Your task to perform on an android device: delete location history Image 0: 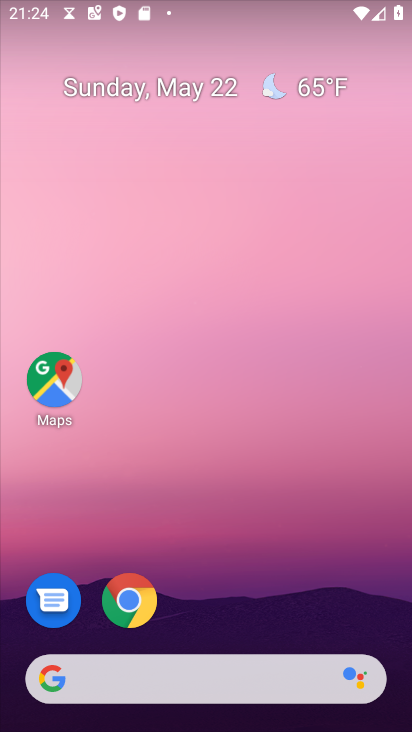
Step 0: drag from (278, 608) to (279, 260)
Your task to perform on an android device: delete location history Image 1: 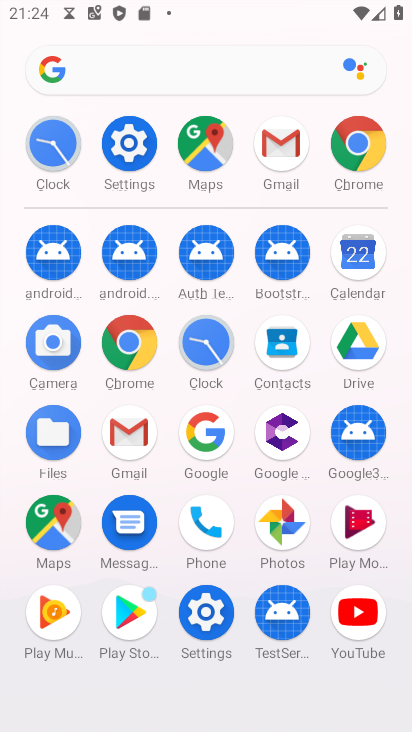
Step 1: click (210, 613)
Your task to perform on an android device: delete location history Image 2: 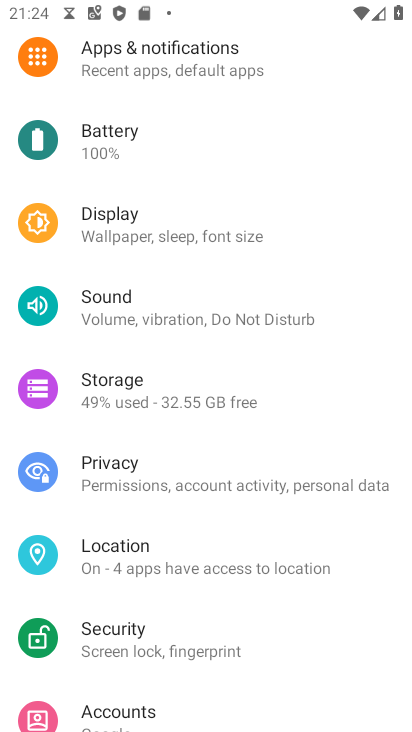
Step 2: click (145, 582)
Your task to perform on an android device: delete location history Image 3: 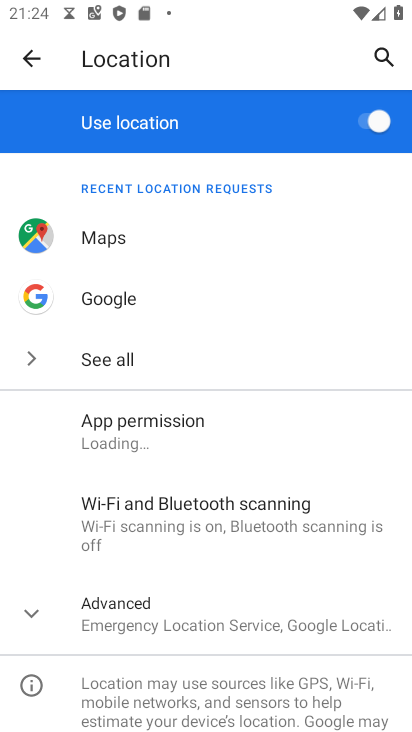
Step 3: drag from (177, 651) to (181, 416)
Your task to perform on an android device: delete location history Image 4: 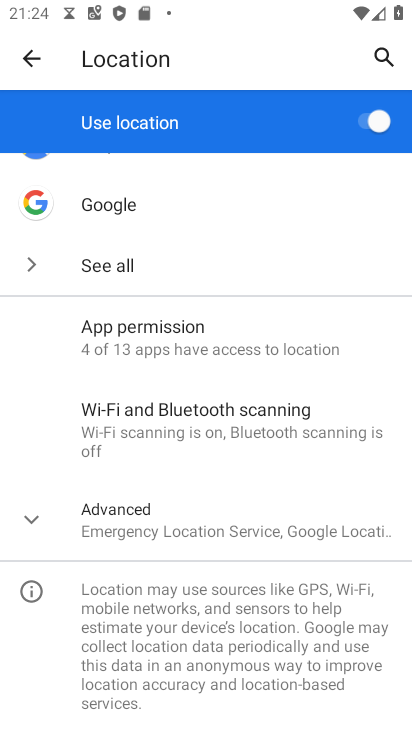
Step 4: click (135, 523)
Your task to perform on an android device: delete location history Image 5: 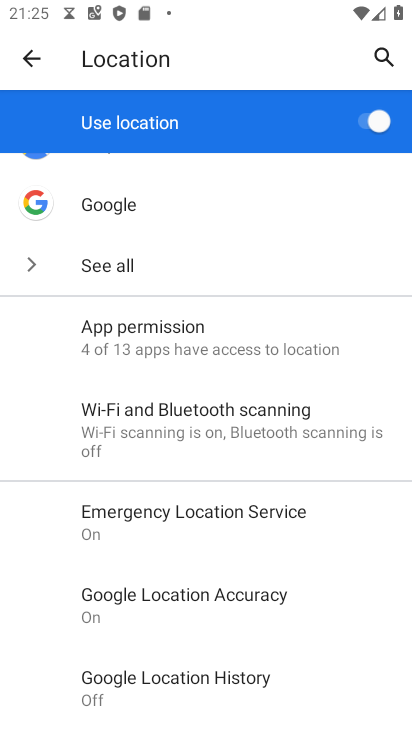
Step 5: drag from (146, 666) to (160, 407)
Your task to perform on an android device: delete location history Image 6: 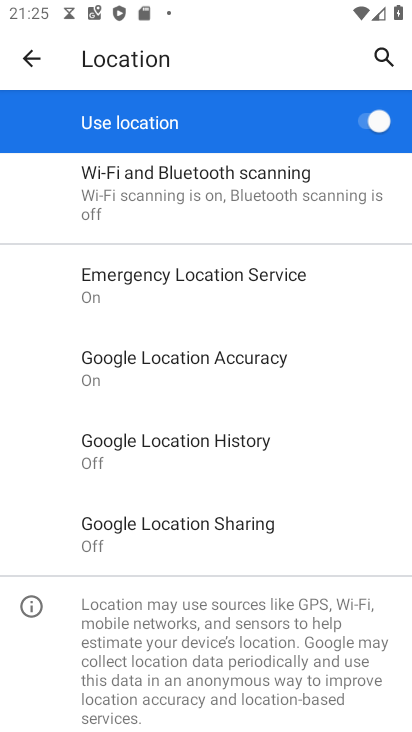
Step 6: click (168, 461)
Your task to perform on an android device: delete location history Image 7: 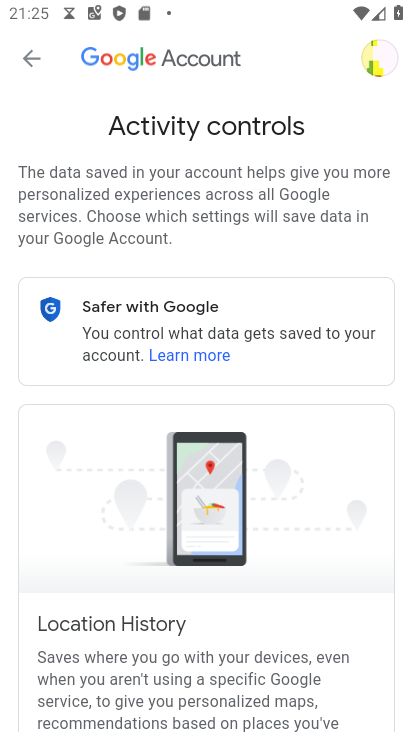
Step 7: drag from (256, 611) to (291, 292)
Your task to perform on an android device: delete location history Image 8: 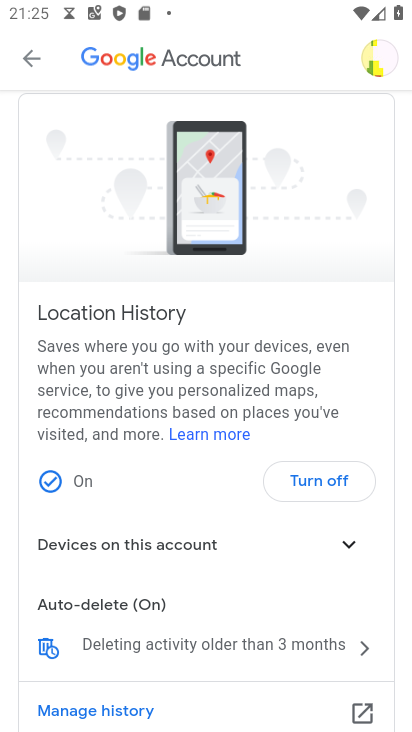
Step 8: drag from (137, 660) to (131, 530)
Your task to perform on an android device: delete location history Image 9: 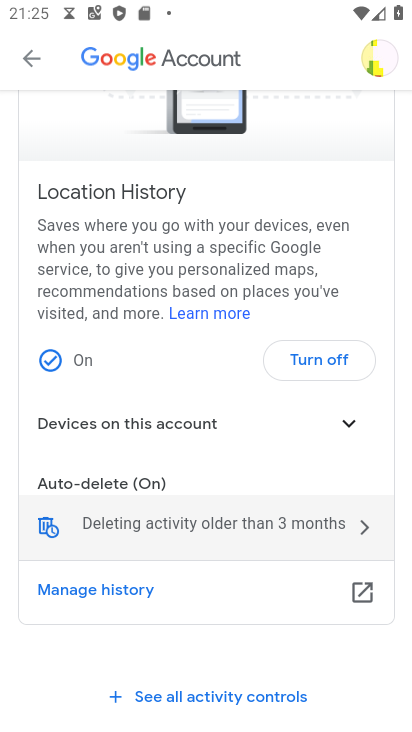
Step 9: click (110, 597)
Your task to perform on an android device: delete location history Image 10: 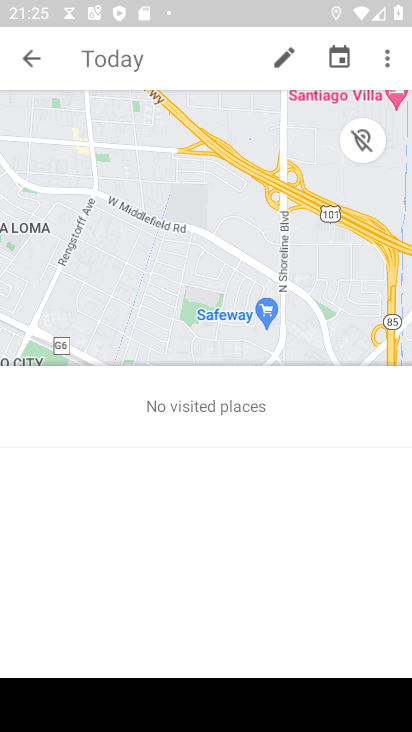
Step 10: click (376, 62)
Your task to perform on an android device: delete location history Image 11: 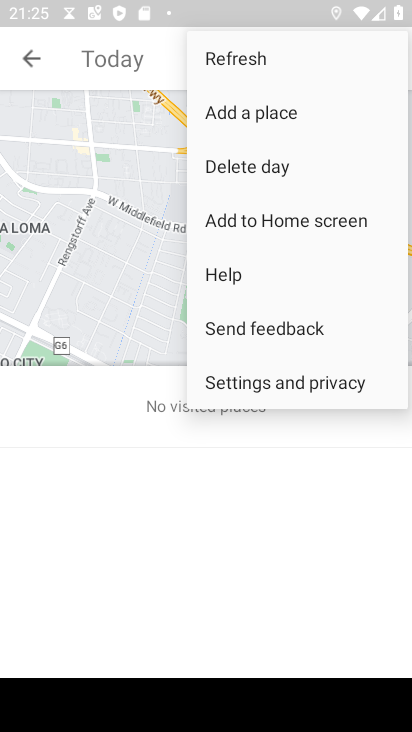
Step 11: click (274, 386)
Your task to perform on an android device: delete location history Image 12: 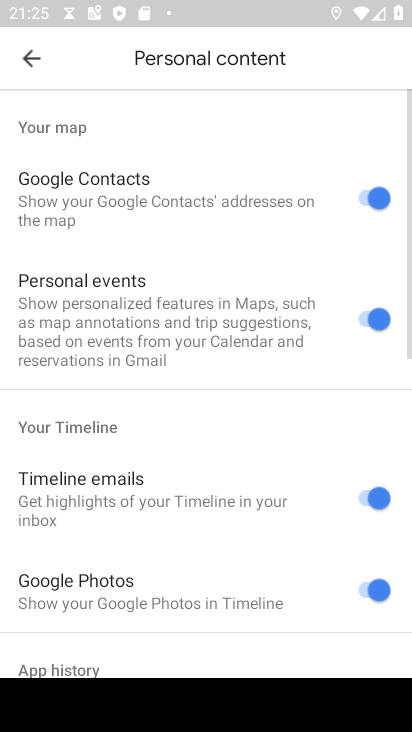
Step 12: drag from (139, 585) to (191, 179)
Your task to perform on an android device: delete location history Image 13: 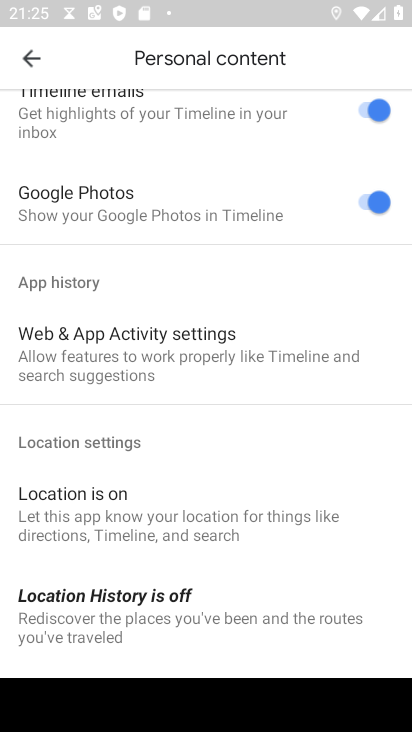
Step 13: drag from (177, 488) to (170, 168)
Your task to perform on an android device: delete location history Image 14: 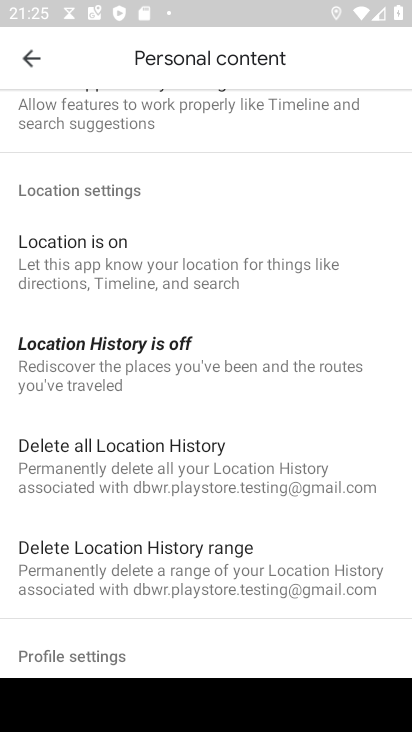
Step 14: click (116, 477)
Your task to perform on an android device: delete location history Image 15: 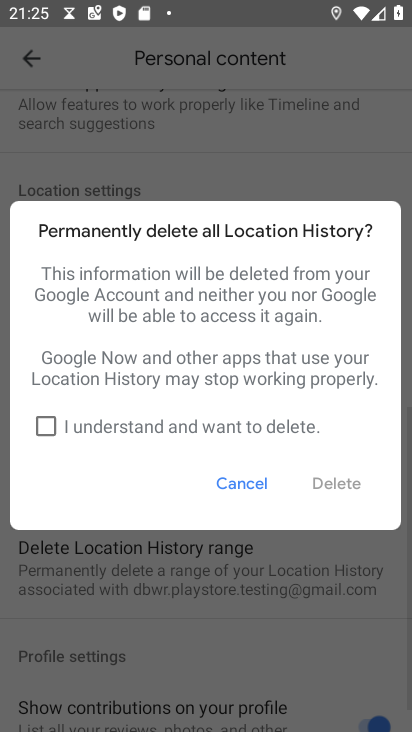
Step 15: click (41, 434)
Your task to perform on an android device: delete location history Image 16: 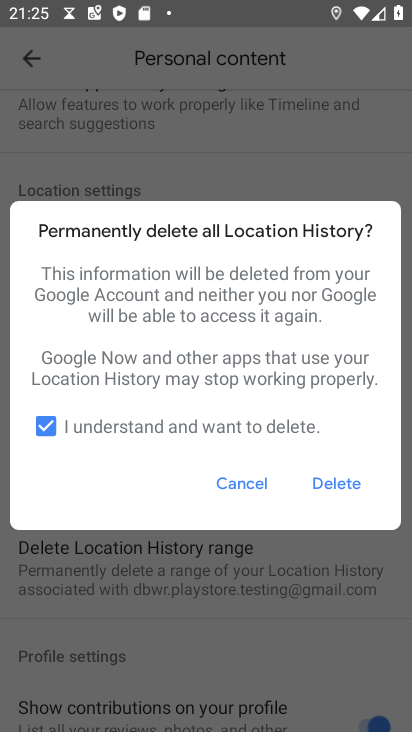
Step 16: click (341, 479)
Your task to perform on an android device: delete location history Image 17: 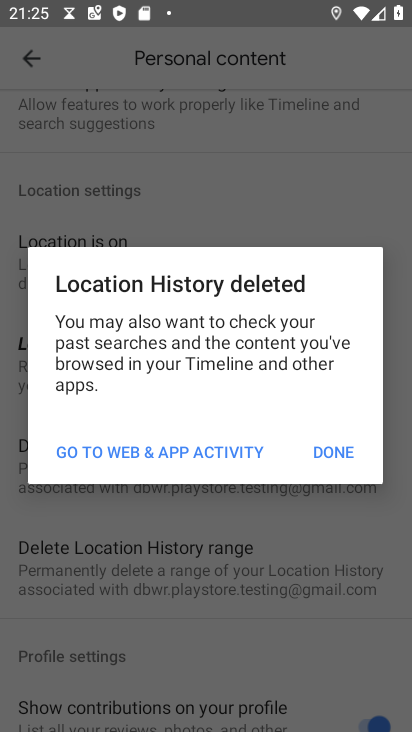
Step 17: click (344, 455)
Your task to perform on an android device: delete location history Image 18: 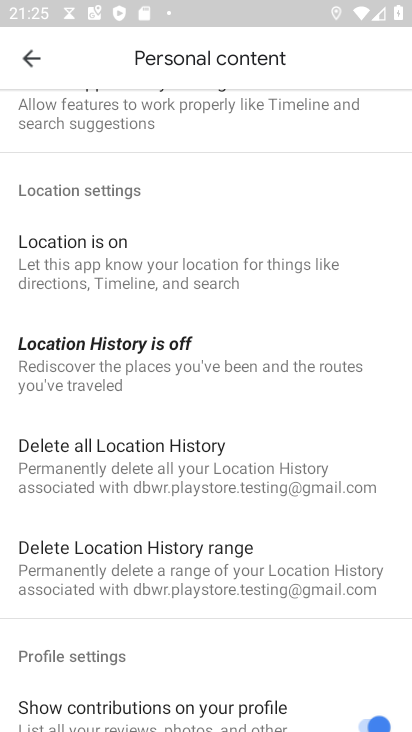
Step 18: task complete